Your task to perform on an android device: Go to Maps Image 0: 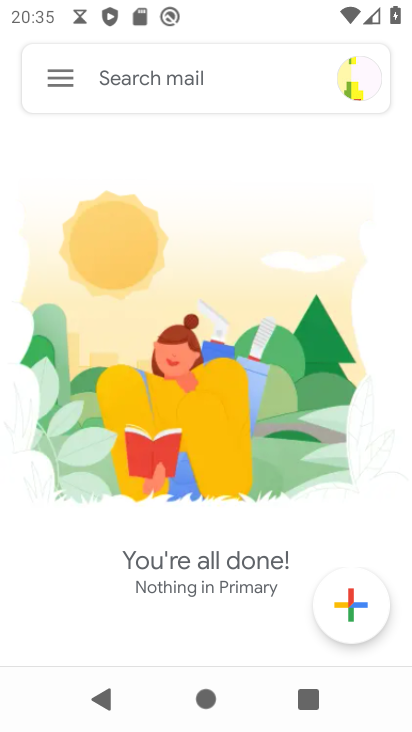
Step 0: press back button
Your task to perform on an android device: Go to Maps Image 1: 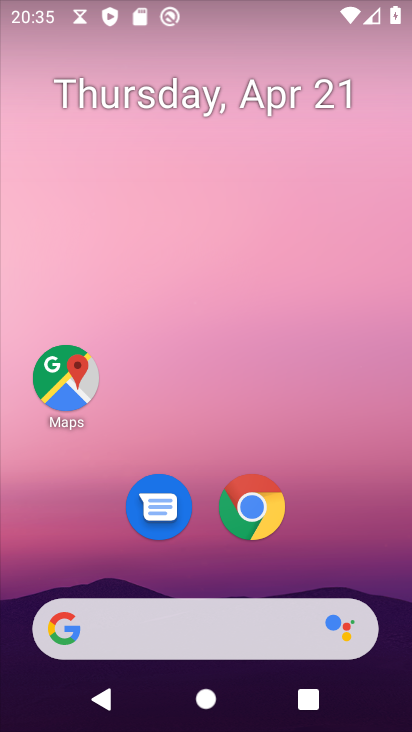
Step 1: click (43, 363)
Your task to perform on an android device: Go to Maps Image 2: 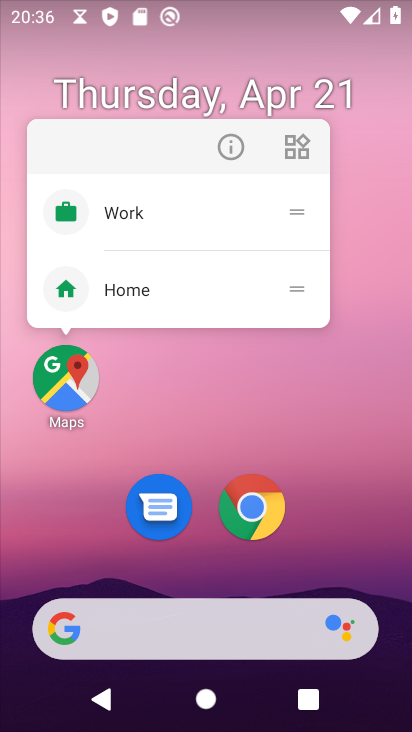
Step 2: click (65, 371)
Your task to perform on an android device: Go to Maps Image 3: 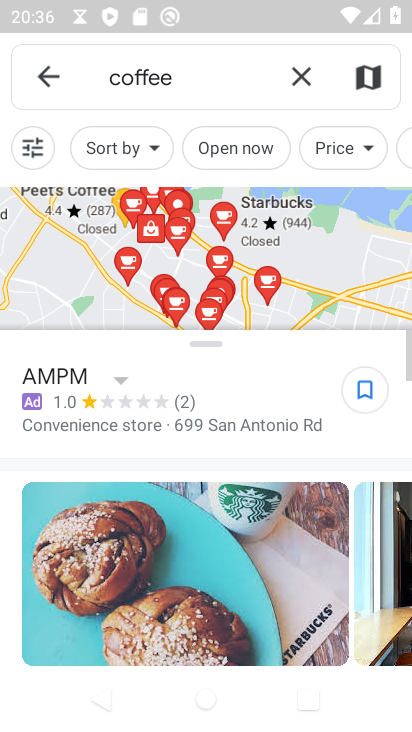
Step 3: task complete